Your task to perform on an android device: What's the weather today? Image 0: 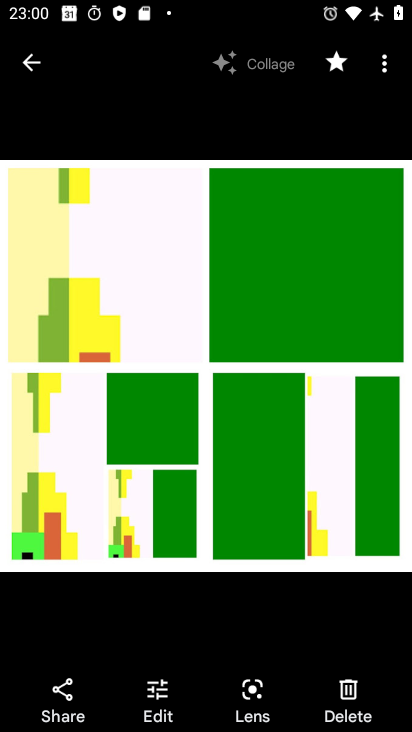
Step 0: press home button
Your task to perform on an android device: What's the weather today? Image 1: 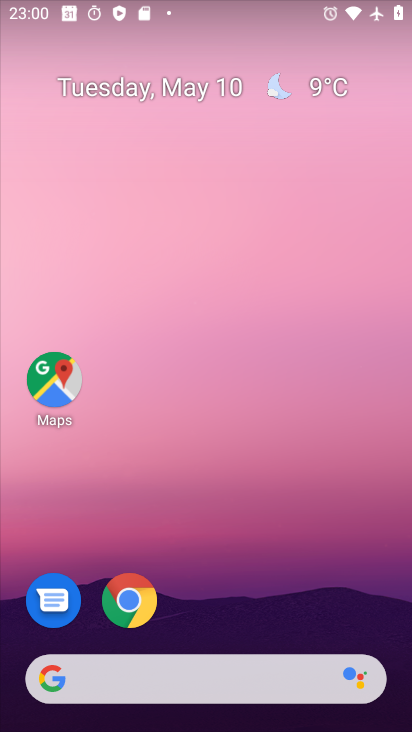
Step 1: drag from (282, 537) to (295, 138)
Your task to perform on an android device: What's the weather today? Image 2: 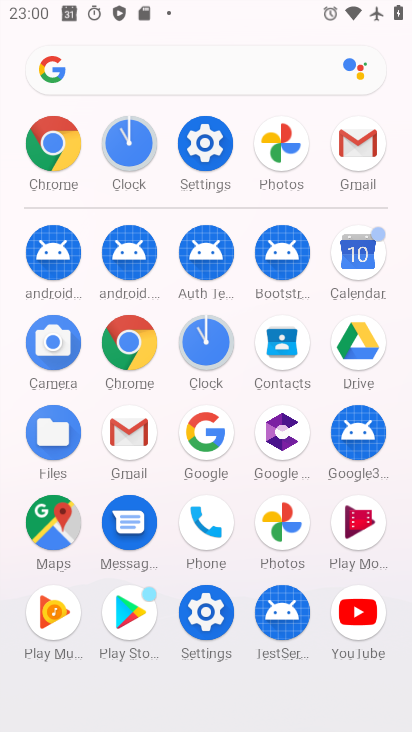
Step 2: press home button
Your task to perform on an android device: What's the weather today? Image 3: 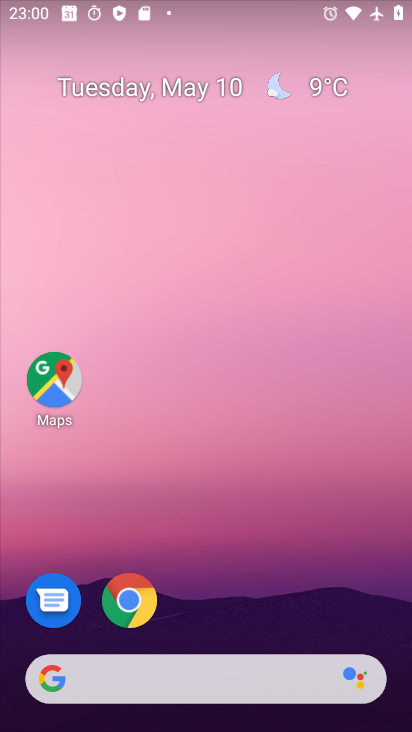
Step 3: click (326, 78)
Your task to perform on an android device: What's the weather today? Image 4: 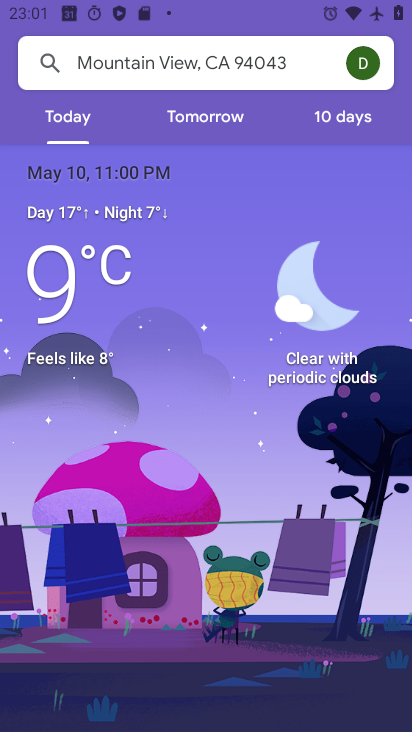
Step 4: task complete